Your task to perform on an android device: Open the calendar and show me this week's events? Image 0: 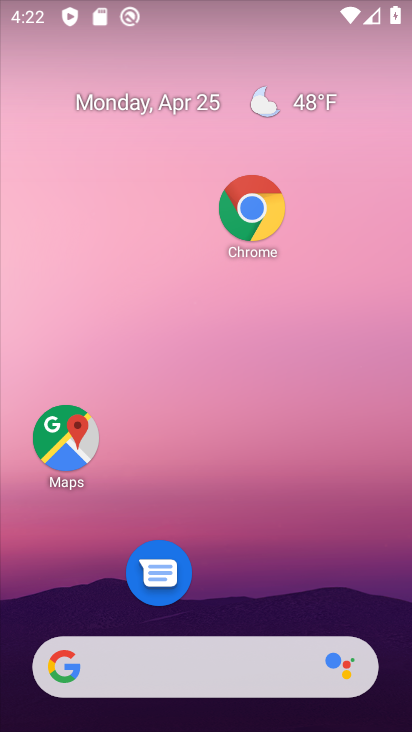
Step 0: drag from (223, 430) to (201, 104)
Your task to perform on an android device: Open the calendar and show me this week's events? Image 1: 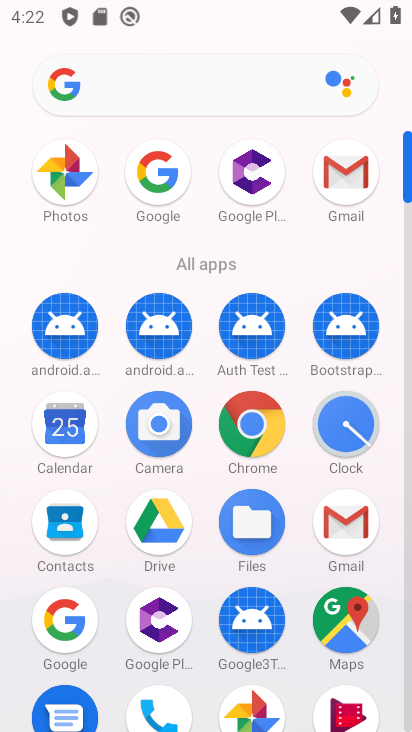
Step 1: click (62, 444)
Your task to perform on an android device: Open the calendar and show me this week's events? Image 2: 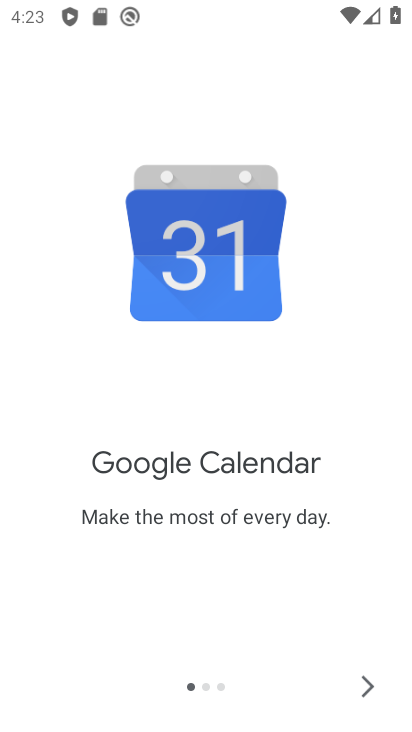
Step 2: click (359, 696)
Your task to perform on an android device: Open the calendar and show me this week's events? Image 3: 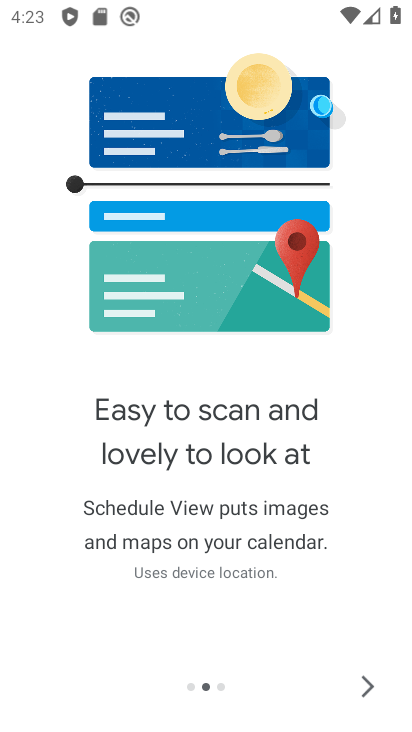
Step 3: click (361, 694)
Your task to perform on an android device: Open the calendar and show me this week's events? Image 4: 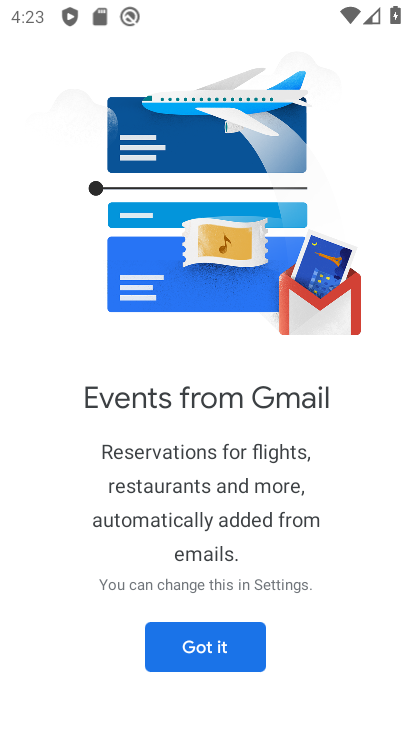
Step 4: click (234, 655)
Your task to perform on an android device: Open the calendar and show me this week's events? Image 5: 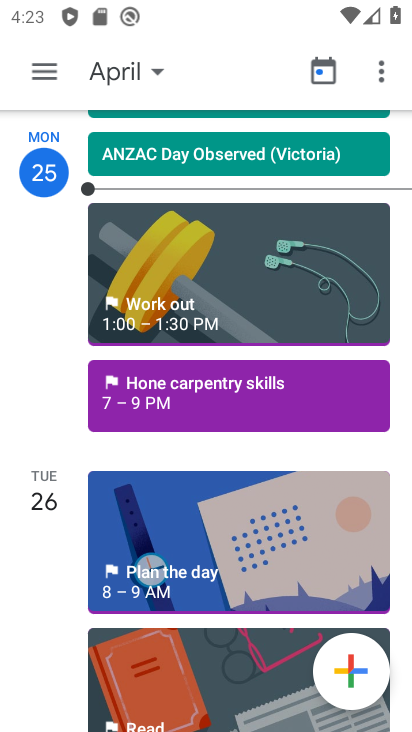
Step 5: click (137, 77)
Your task to perform on an android device: Open the calendar and show me this week's events? Image 6: 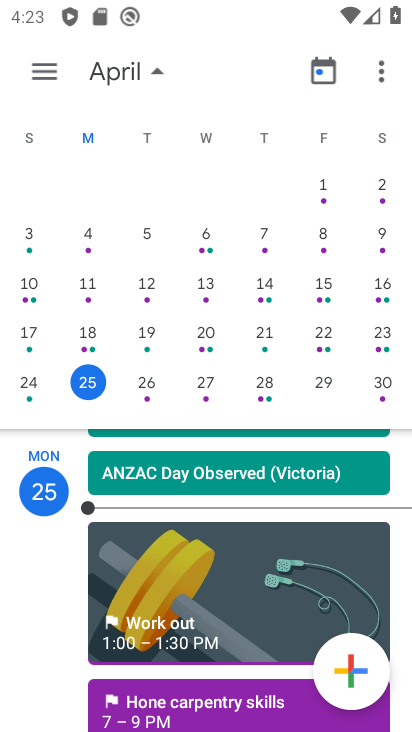
Step 6: click (269, 389)
Your task to perform on an android device: Open the calendar and show me this week's events? Image 7: 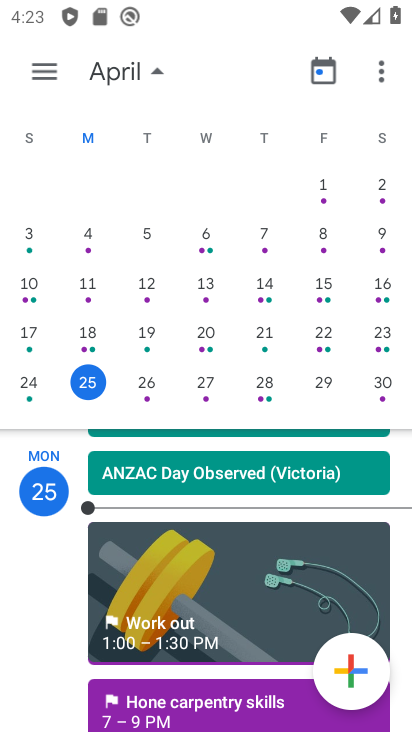
Step 7: click (267, 386)
Your task to perform on an android device: Open the calendar and show me this week's events? Image 8: 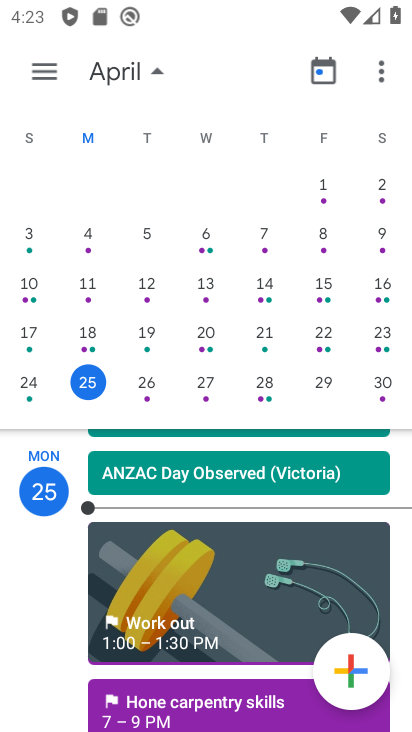
Step 8: click (272, 380)
Your task to perform on an android device: Open the calendar and show me this week's events? Image 9: 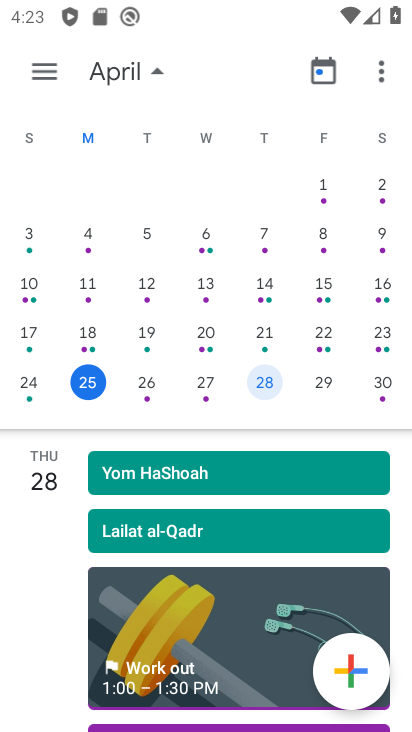
Step 9: drag from (215, 621) to (247, 405)
Your task to perform on an android device: Open the calendar and show me this week's events? Image 10: 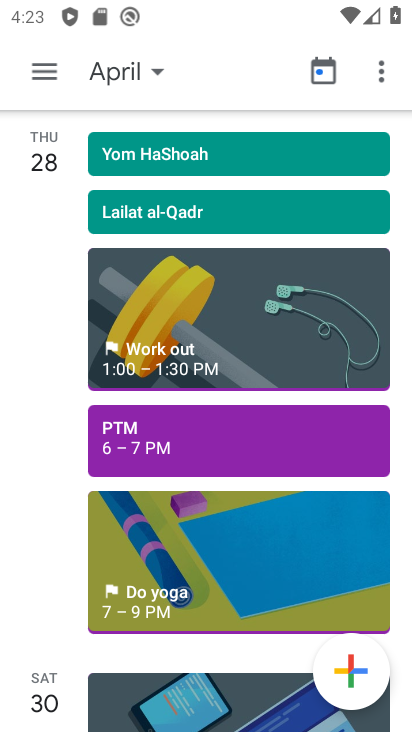
Step 10: click (201, 542)
Your task to perform on an android device: Open the calendar and show me this week's events? Image 11: 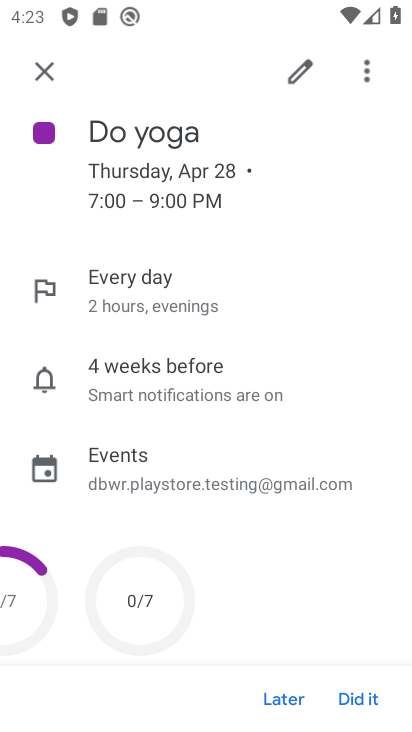
Step 11: task complete